Your task to perform on an android device: Open Google Chrome and click the shortcut for Amazon.com Image 0: 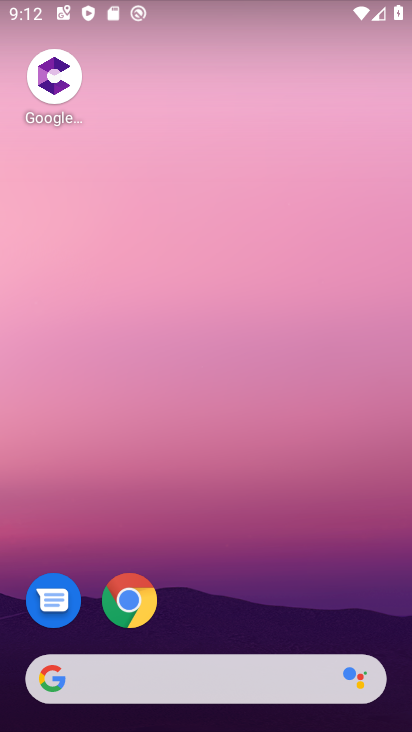
Step 0: drag from (248, 522) to (248, 92)
Your task to perform on an android device: Open Google Chrome and click the shortcut for Amazon.com Image 1: 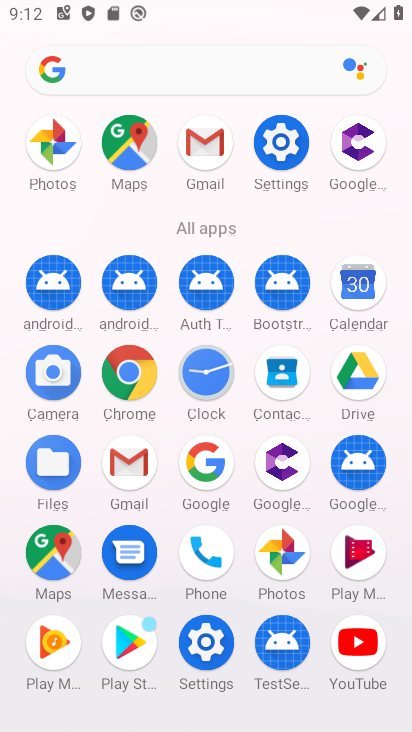
Step 1: click (126, 381)
Your task to perform on an android device: Open Google Chrome and click the shortcut for Amazon.com Image 2: 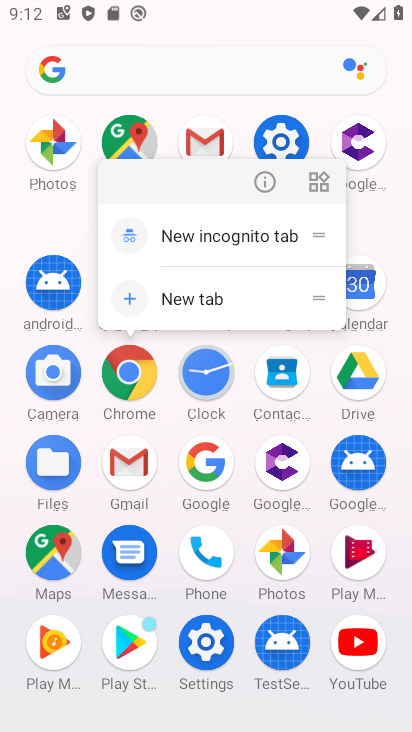
Step 2: click (126, 381)
Your task to perform on an android device: Open Google Chrome and click the shortcut for Amazon.com Image 3: 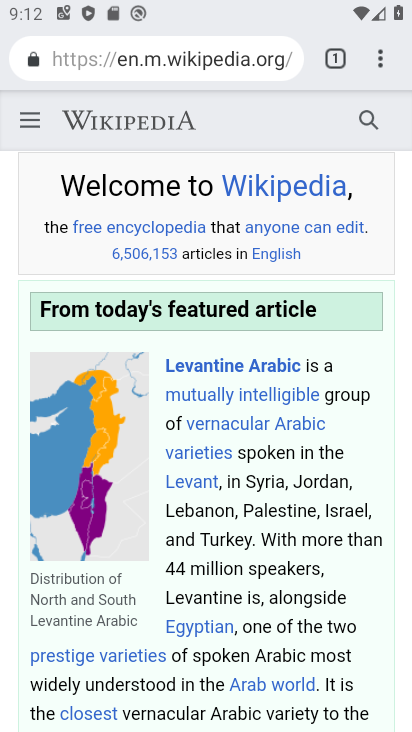
Step 3: click (332, 59)
Your task to perform on an android device: Open Google Chrome and click the shortcut for Amazon.com Image 4: 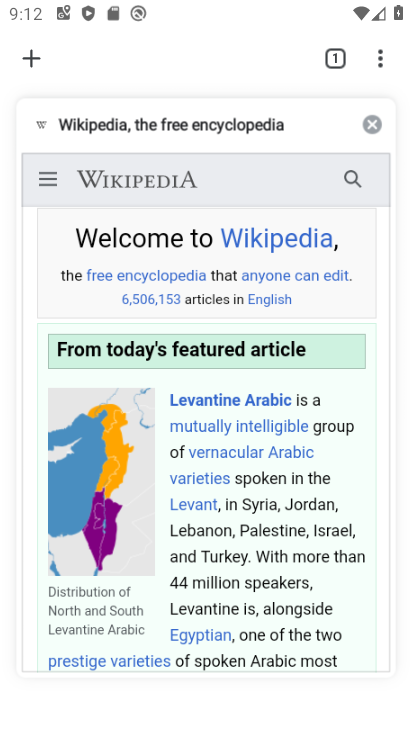
Step 4: click (34, 55)
Your task to perform on an android device: Open Google Chrome and click the shortcut for Amazon.com Image 5: 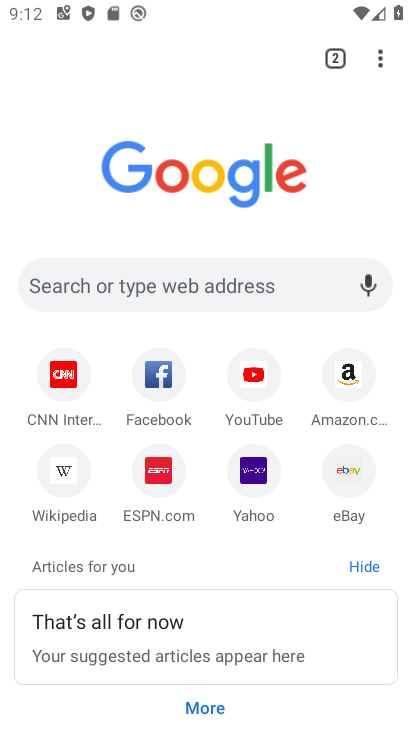
Step 5: click (350, 374)
Your task to perform on an android device: Open Google Chrome and click the shortcut for Amazon.com Image 6: 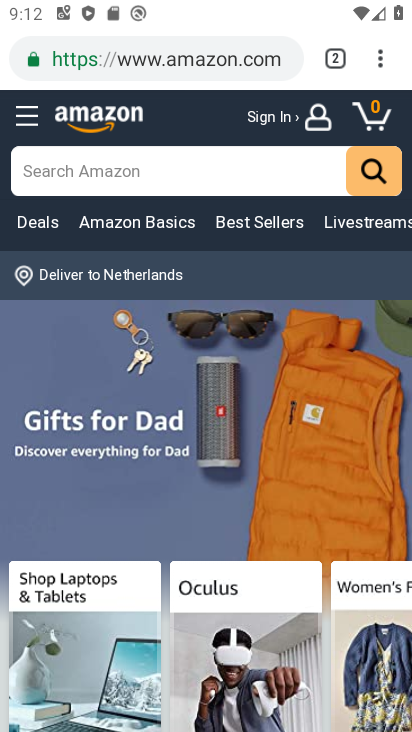
Step 6: task complete